Your task to perform on an android device: Open Chrome and go to settings Image 0: 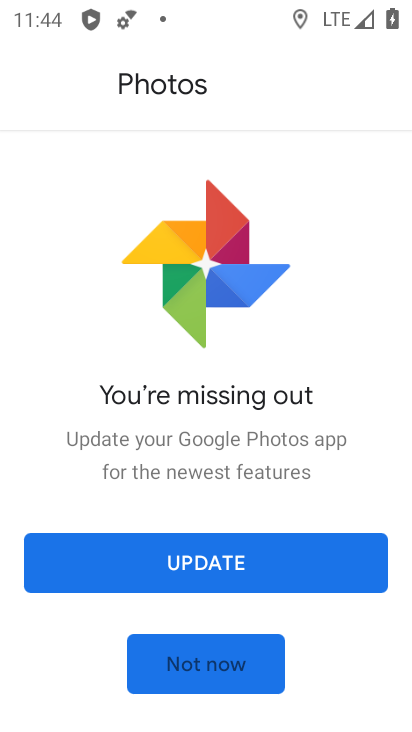
Step 0: press home button
Your task to perform on an android device: Open Chrome and go to settings Image 1: 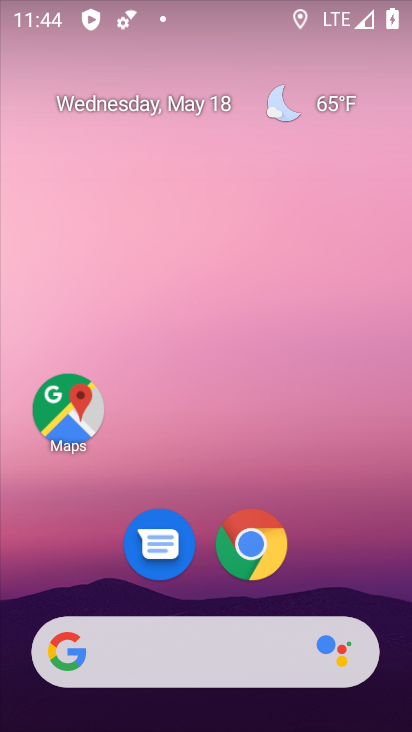
Step 1: drag from (378, 589) to (384, 145)
Your task to perform on an android device: Open Chrome and go to settings Image 2: 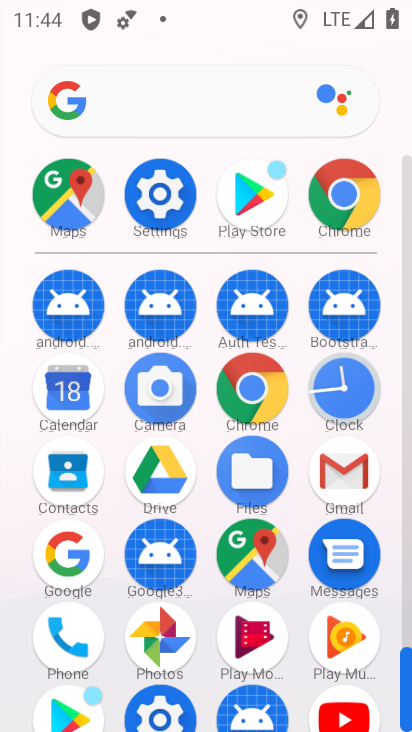
Step 2: click (250, 403)
Your task to perform on an android device: Open Chrome and go to settings Image 3: 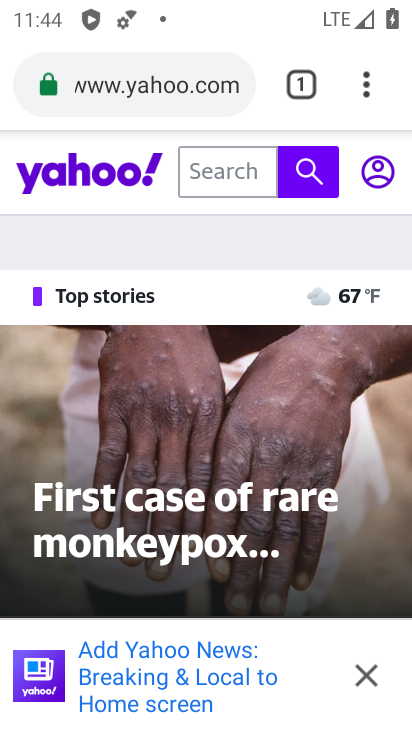
Step 3: click (363, 89)
Your task to perform on an android device: Open Chrome and go to settings Image 4: 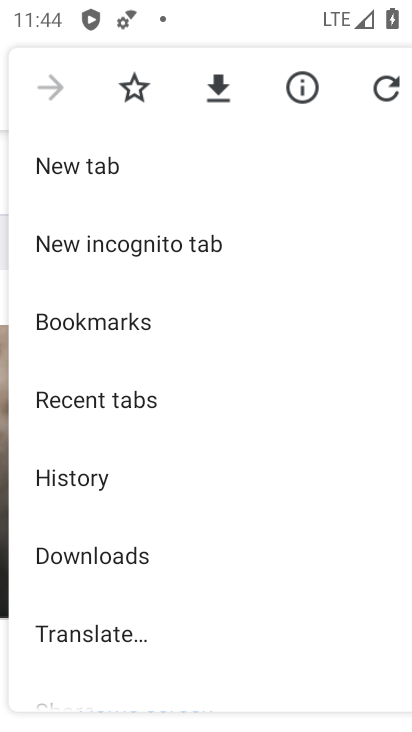
Step 4: drag from (331, 557) to (331, 379)
Your task to perform on an android device: Open Chrome and go to settings Image 5: 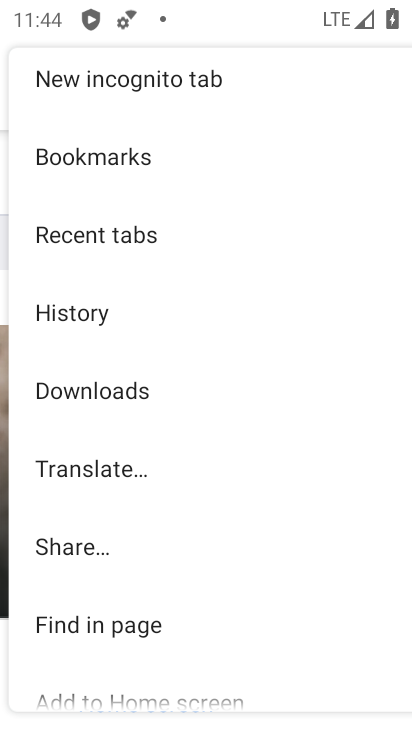
Step 5: drag from (321, 622) to (331, 442)
Your task to perform on an android device: Open Chrome and go to settings Image 6: 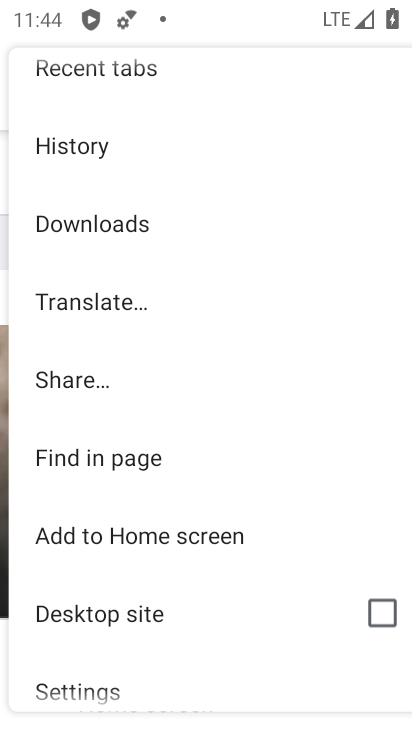
Step 6: drag from (288, 602) to (290, 461)
Your task to perform on an android device: Open Chrome and go to settings Image 7: 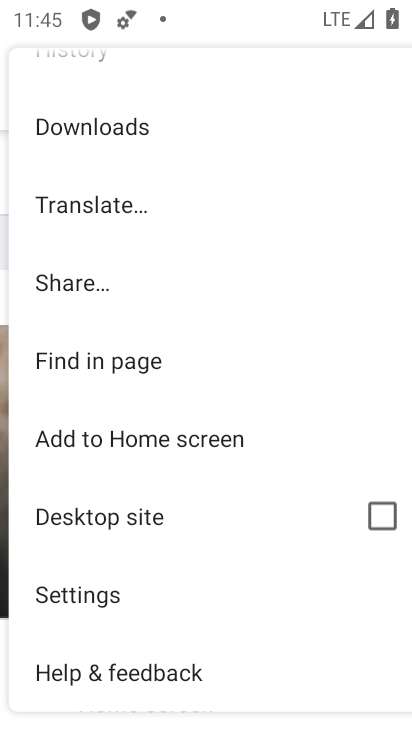
Step 7: click (98, 596)
Your task to perform on an android device: Open Chrome and go to settings Image 8: 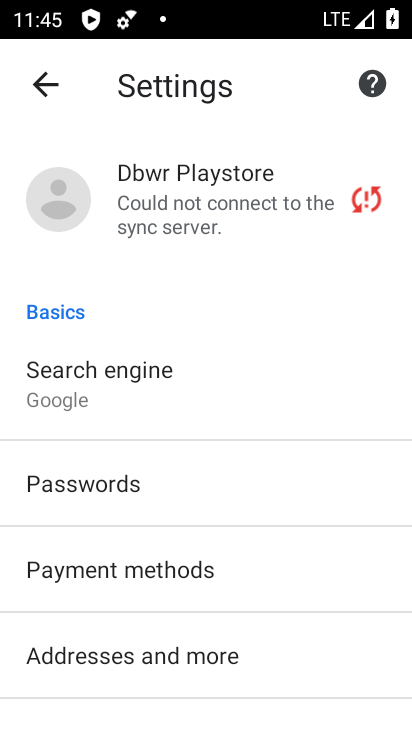
Step 8: task complete